Your task to perform on an android device: Open accessibility settings Image 0: 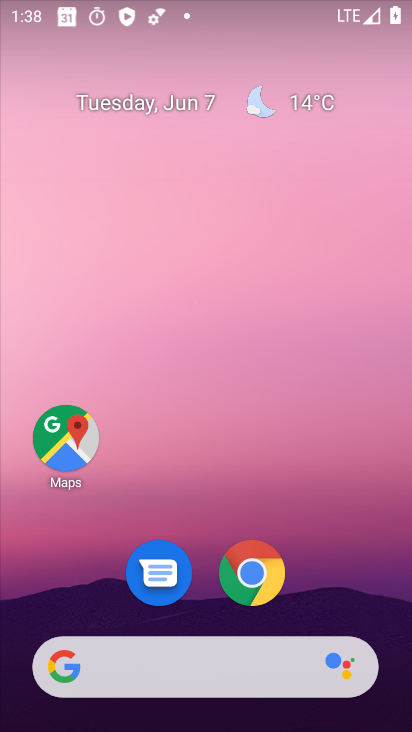
Step 0: press home button
Your task to perform on an android device: Open accessibility settings Image 1: 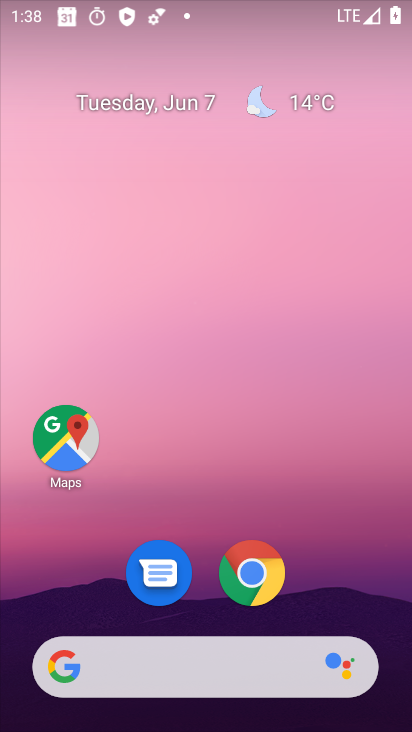
Step 1: click (65, 419)
Your task to perform on an android device: Open accessibility settings Image 2: 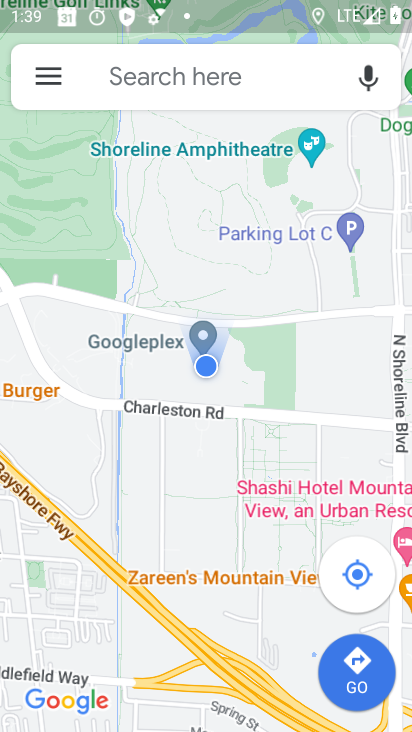
Step 2: press home button
Your task to perform on an android device: Open accessibility settings Image 3: 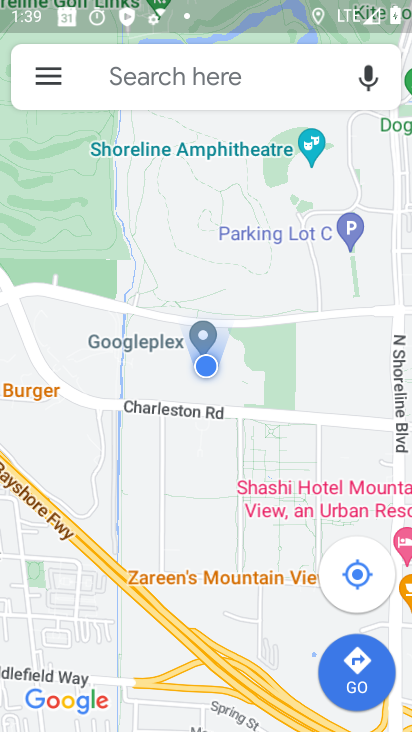
Step 3: press home button
Your task to perform on an android device: Open accessibility settings Image 4: 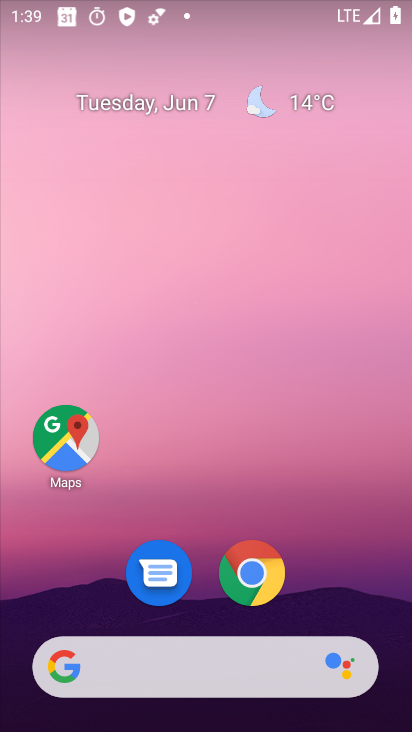
Step 4: drag from (313, 622) to (323, 69)
Your task to perform on an android device: Open accessibility settings Image 5: 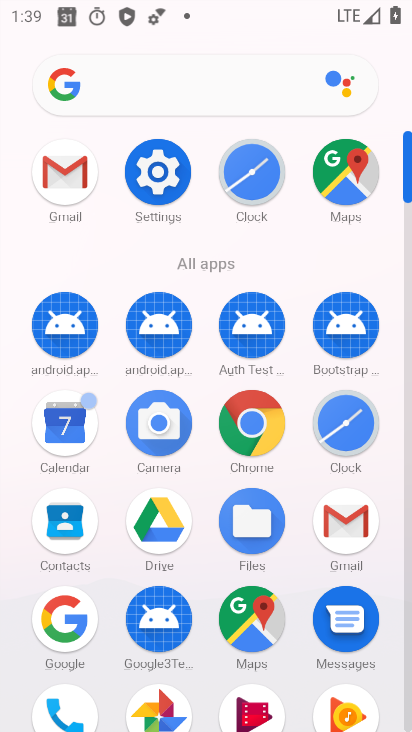
Step 5: drag from (299, 529) to (329, 112)
Your task to perform on an android device: Open accessibility settings Image 6: 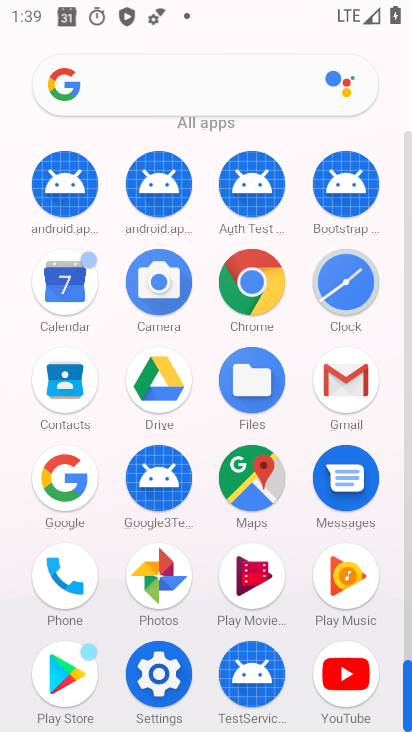
Step 6: click (156, 670)
Your task to perform on an android device: Open accessibility settings Image 7: 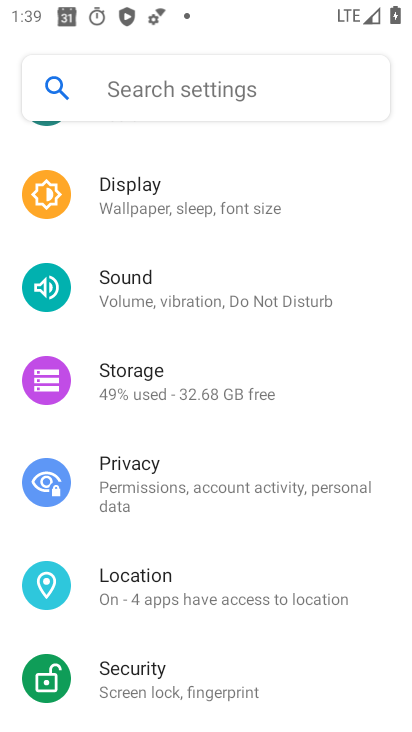
Step 7: drag from (252, 663) to (250, 124)
Your task to perform on an android device: Open accessibility settings Image 8: 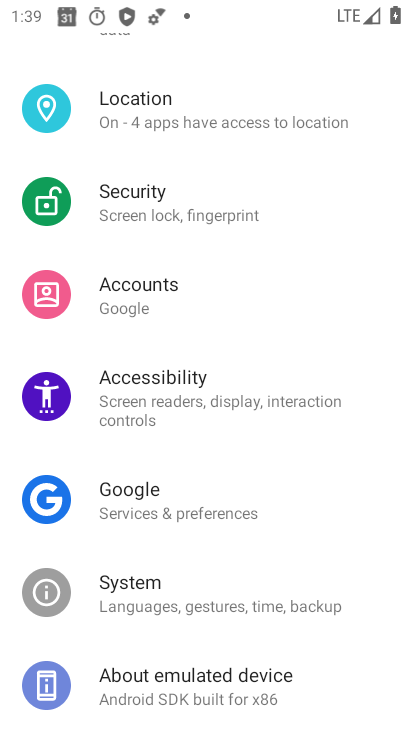
Step 8: click (209, 378)
Your task to perform on an android device: Open accessibility settings Image 9: 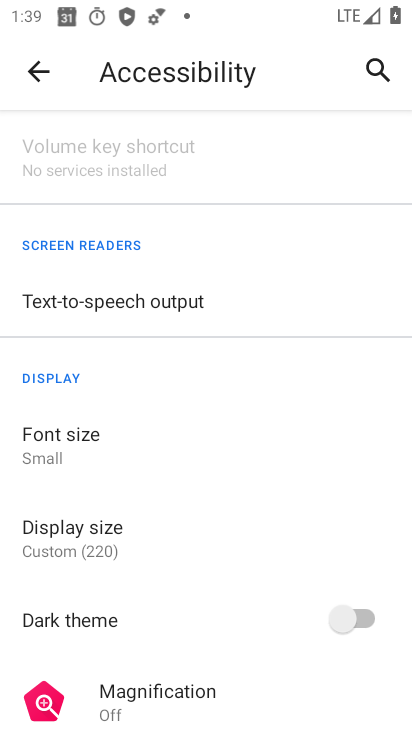
Step 9: click (243, 645)
Your task to perform on an android device: Open accessibility settings Image 10: 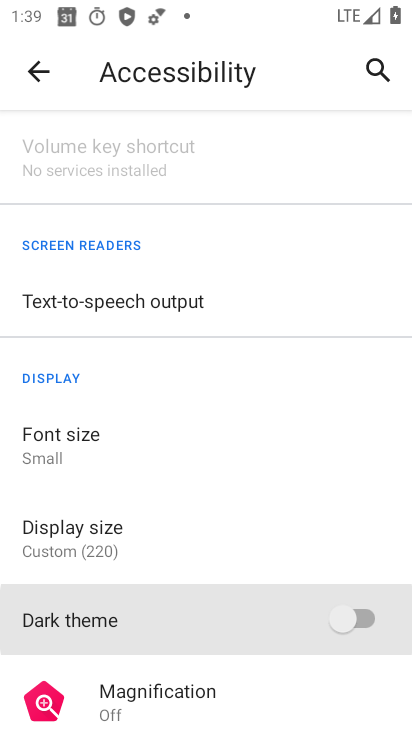
Step 10: task complete